Your task to perform on an android device: Go to wifi settings Image 0: 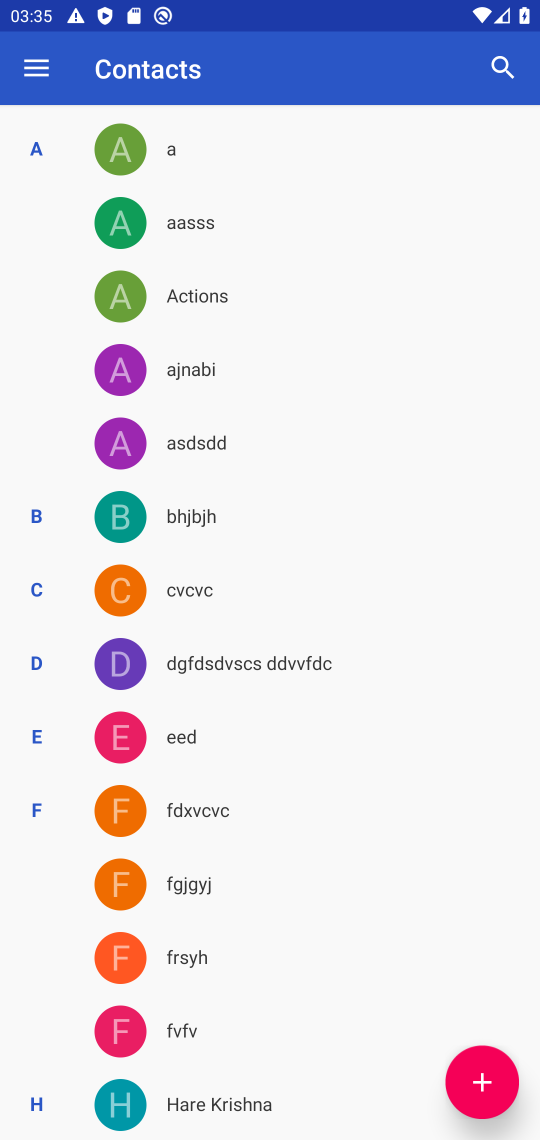
Step 0: press home button
Your task to perform on an android device: Go to wifi settings Image 1: 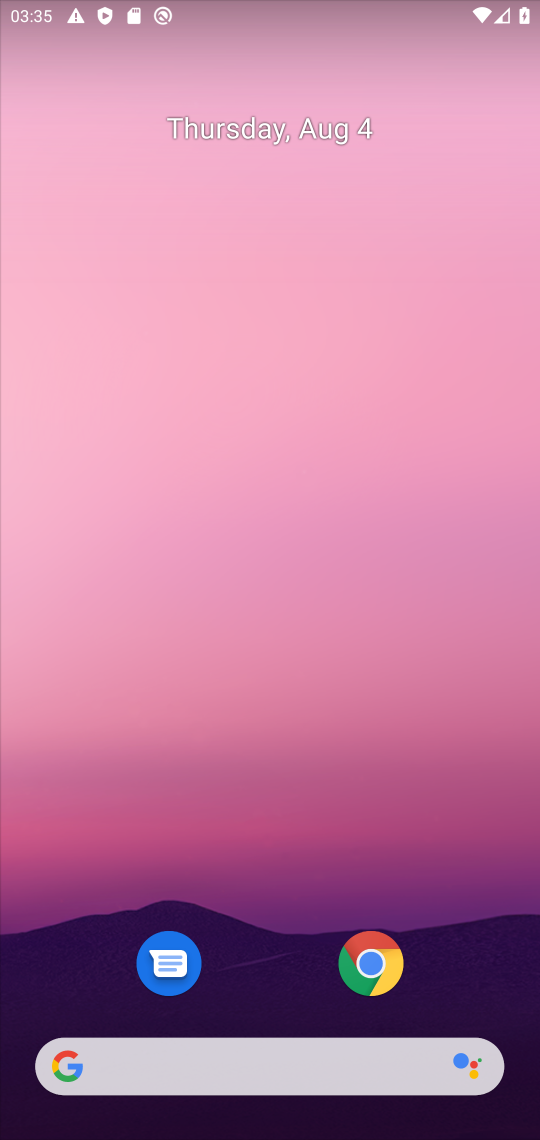
Step 1: drag from (297, 910) to (320, 53)
Your task to perform on an android device: Go to wifi settings Image 2: 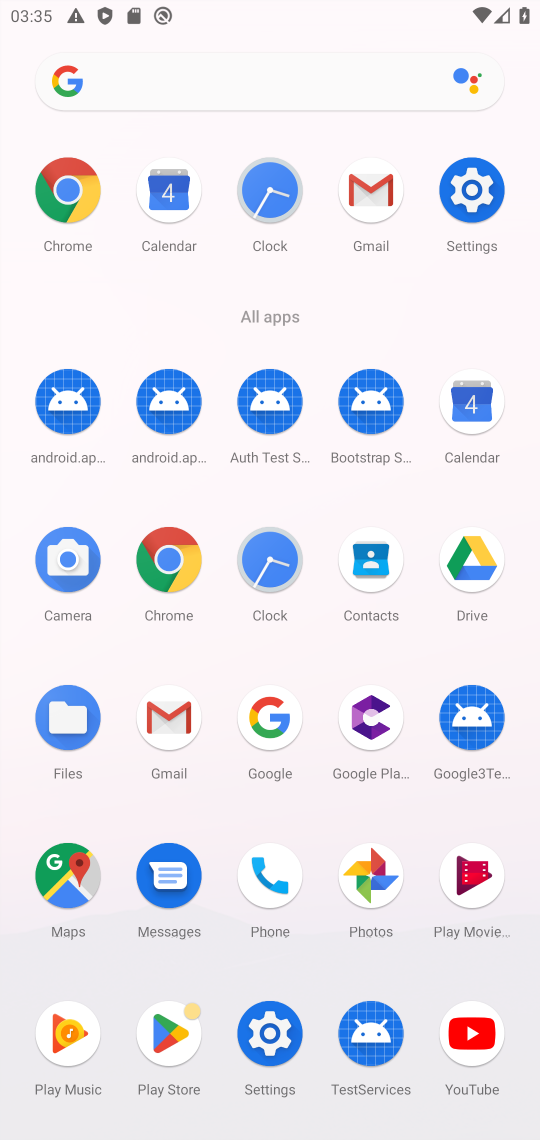
Step 2: click (468, 189)
Your task to perform on an android device: Go to wifi settings Image 3: 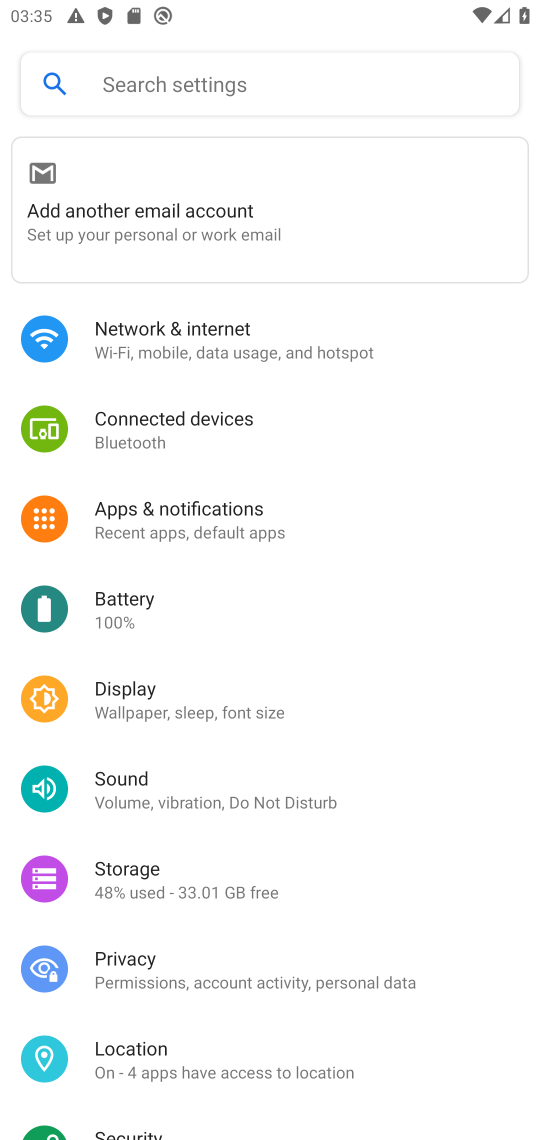
Step 3: click (150, 336)
Your task to perform on an android device: Go to wifi settings Image 4: 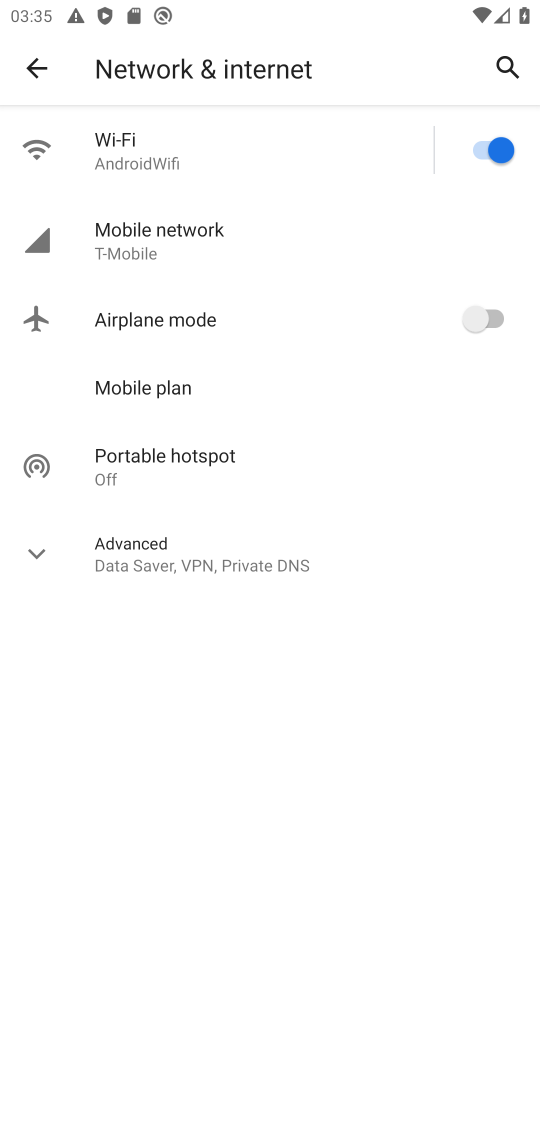
Step 4: click (50, 152)
Your task to perform on an android device: Go to wifi settings Image 5: 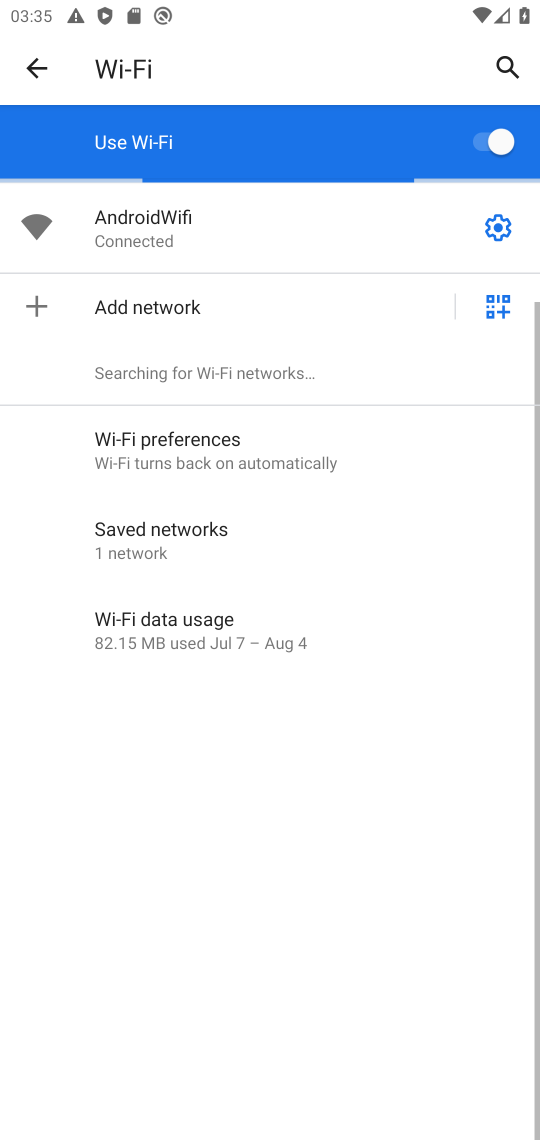
Step 5: task complete